Your task to perform on an android device: Open Yahoo.com Image 0: 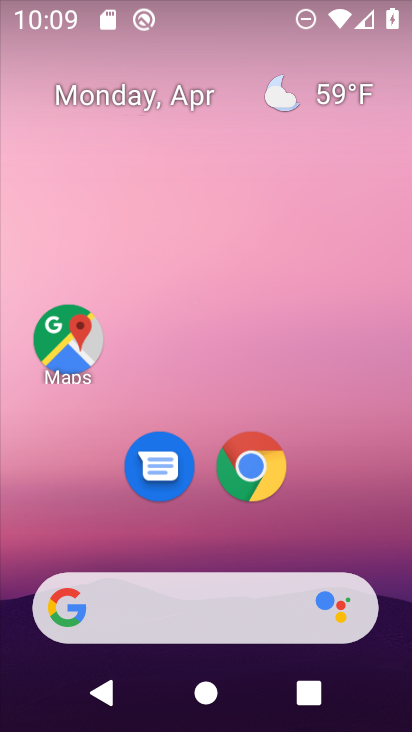
Step 0: click (256, 450)
Your task to perform on an android device: Open Yahoo.com Image 1: 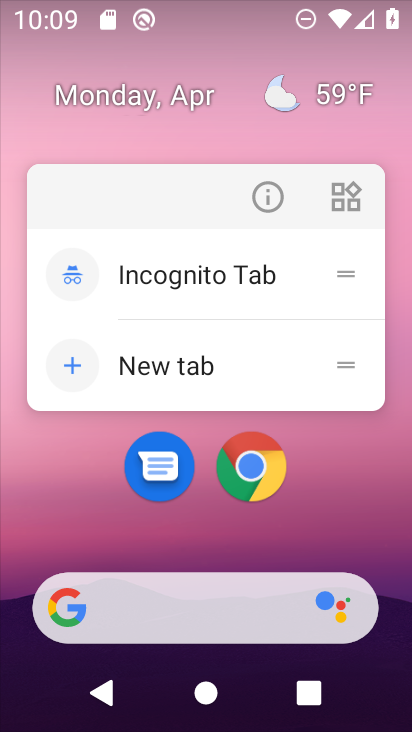
Step 1: click (259, 464)
Your task to perform on an android device: Open Yahoo.com Image 2: 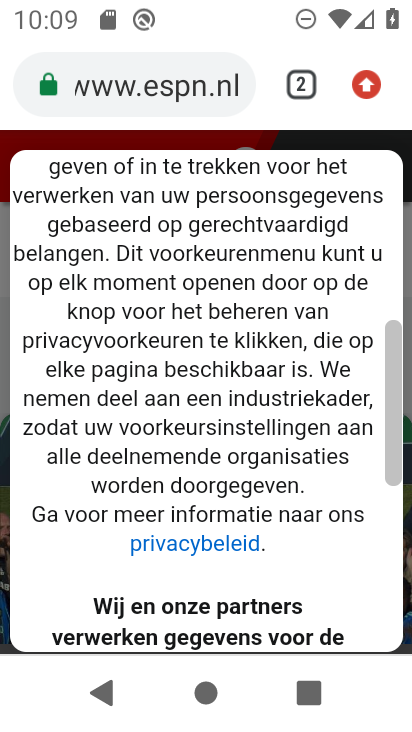
Step 2: click (358, 81)
Your task to perform on an android device: Open Yahoo.com Image 3: 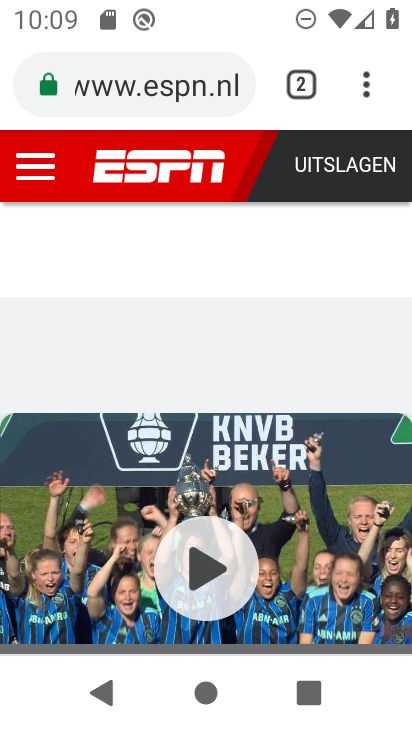
Step 3: click (303, 84)
Your task to perform on an android device: Open Yahoo.com Image 4: 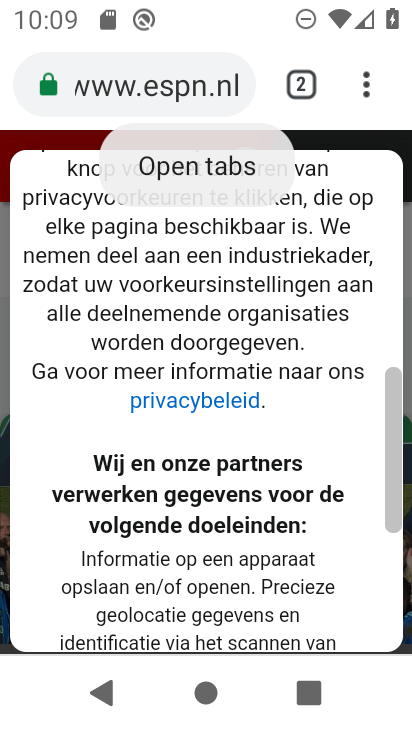
Step 4: click (299, 73)
Your task to perform on an android device: Open Yahoo.com Image 5: 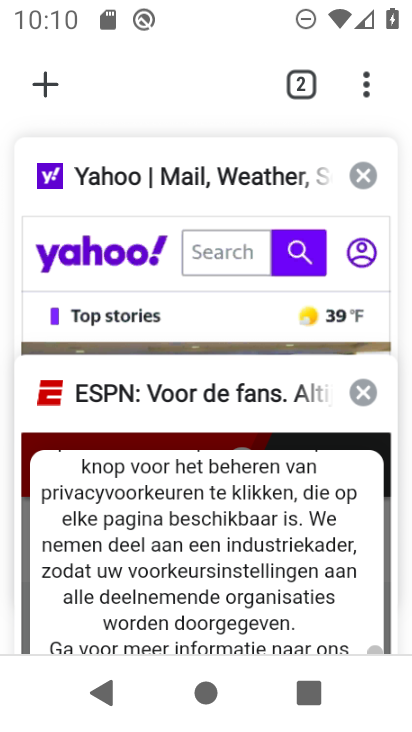
Step 5: click (131, 163)
Your task to perform on an android device: Open Yahoo.com Image 6: 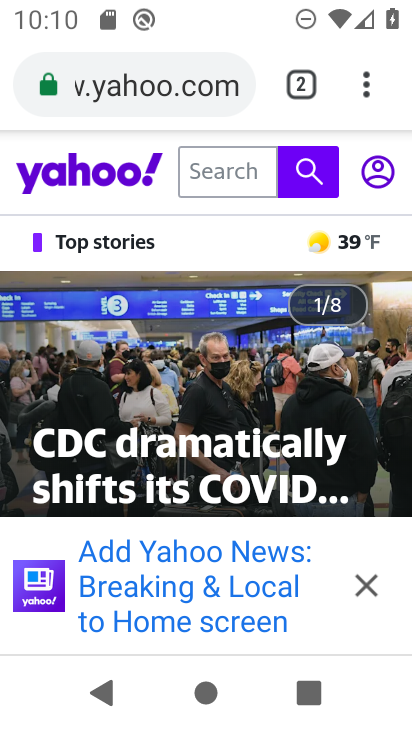
Step 6: task complete